Your task to perform on an android device: What is the news today? Image 0: 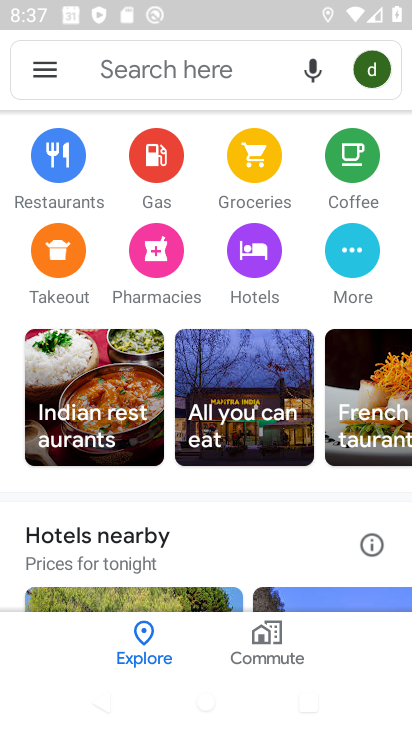
Step 0: press home button
Your task to perform on an android device: What is the news today? Image 1: 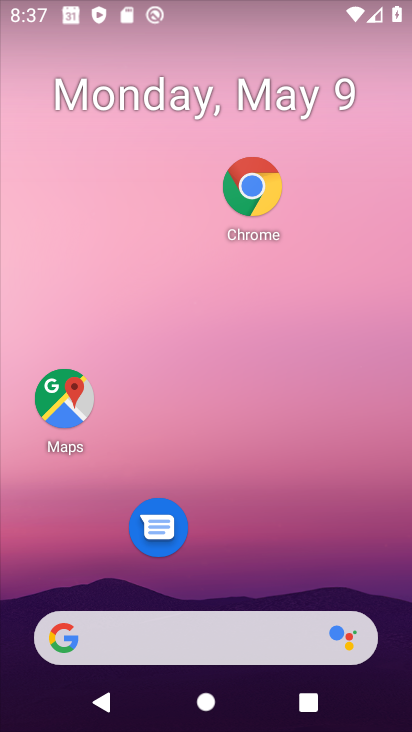
Step 1: task complete